Your task to perform on an android device: turn on the 24-hour format for clock Image 0: 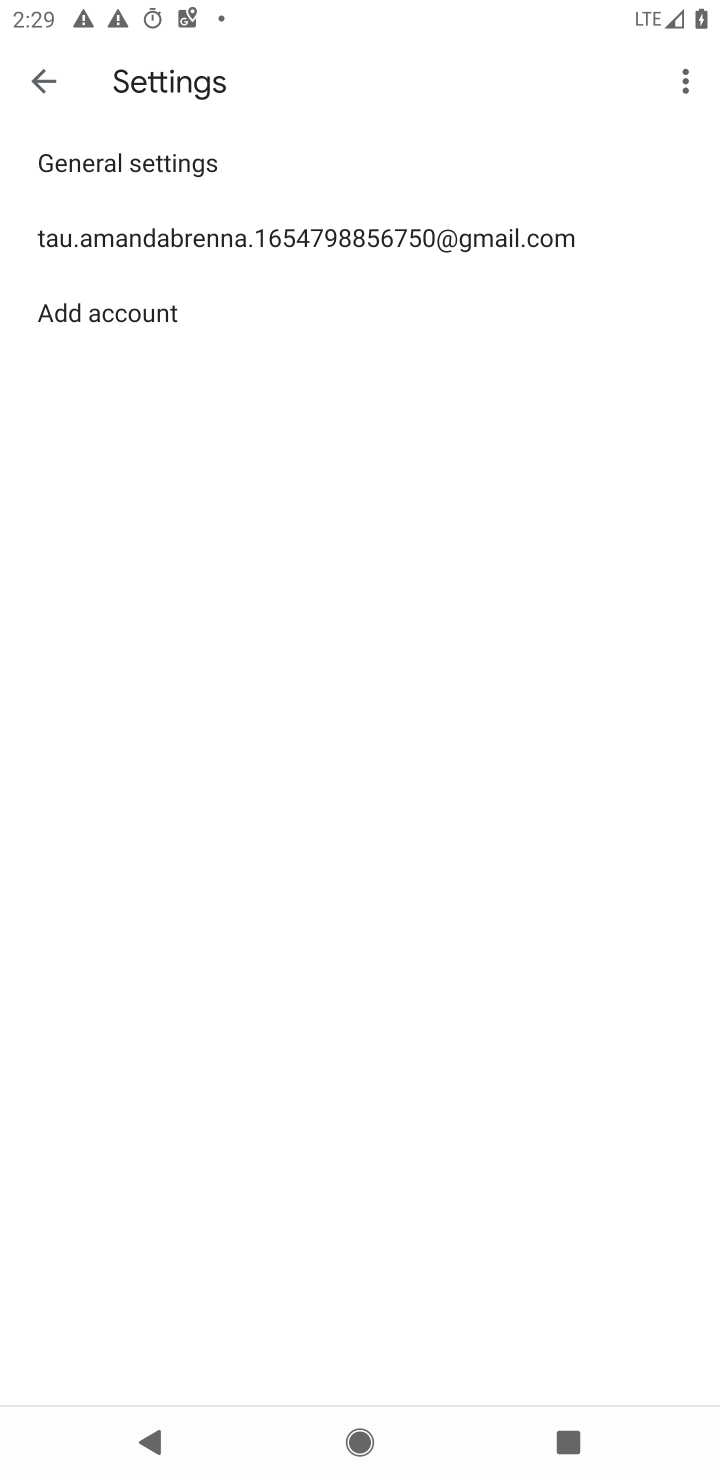
Step 0: press home button
Your task to perform on an android device: turn on the 24-hour format for clock Image 1: 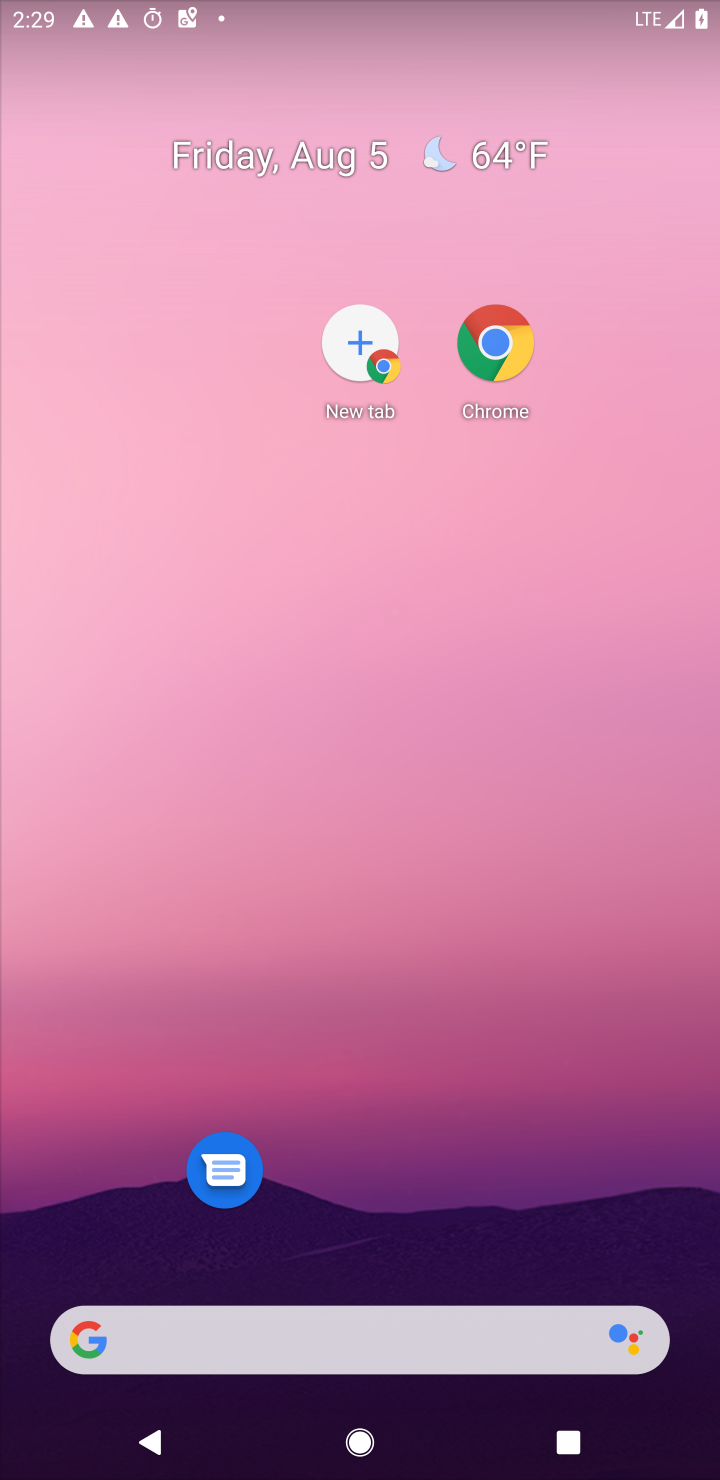
Step 1: drag from (335, 1213) to (255, 26)
Your task to perform on an android device: turn on the 24-hour format for clock Image 2: 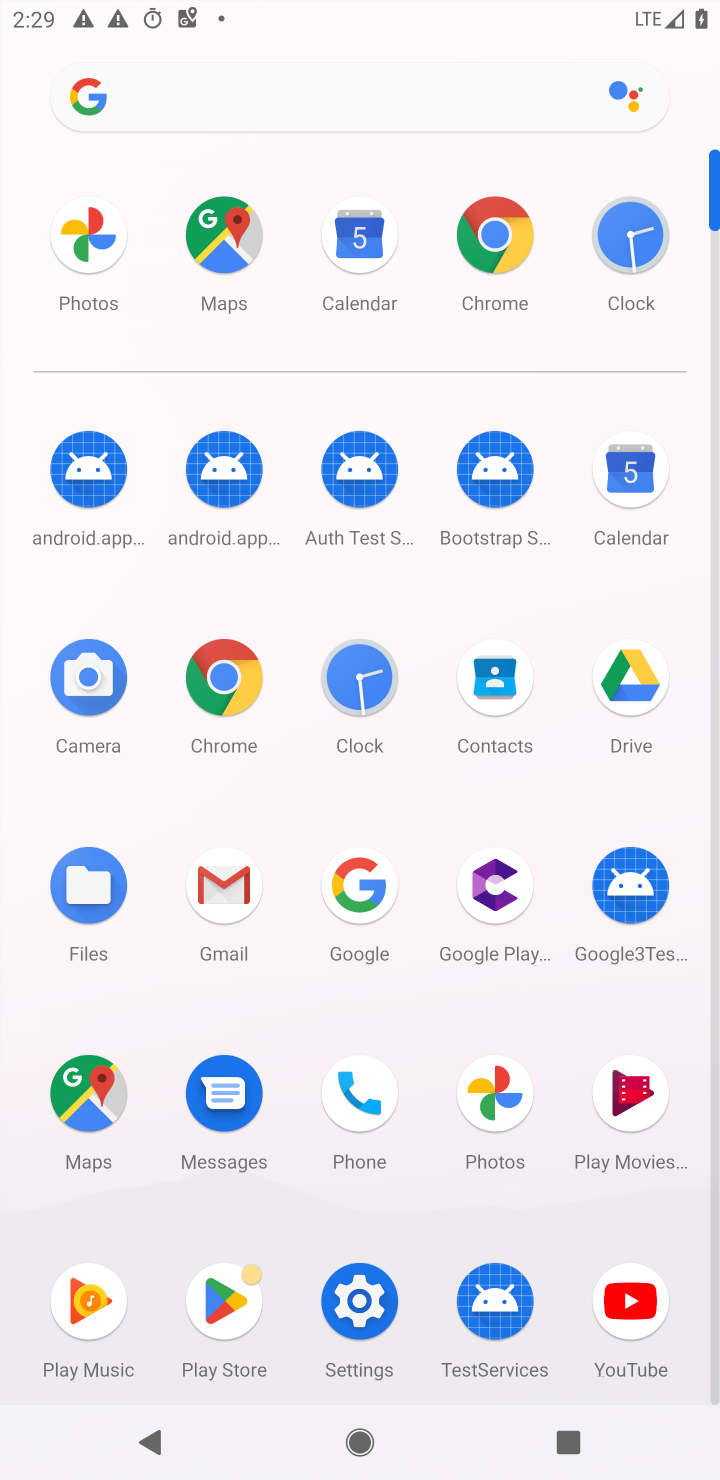
Step 2: click (362, 683)
Your task to perform on an android device: turn on the 24-hour format for clock Image 3: 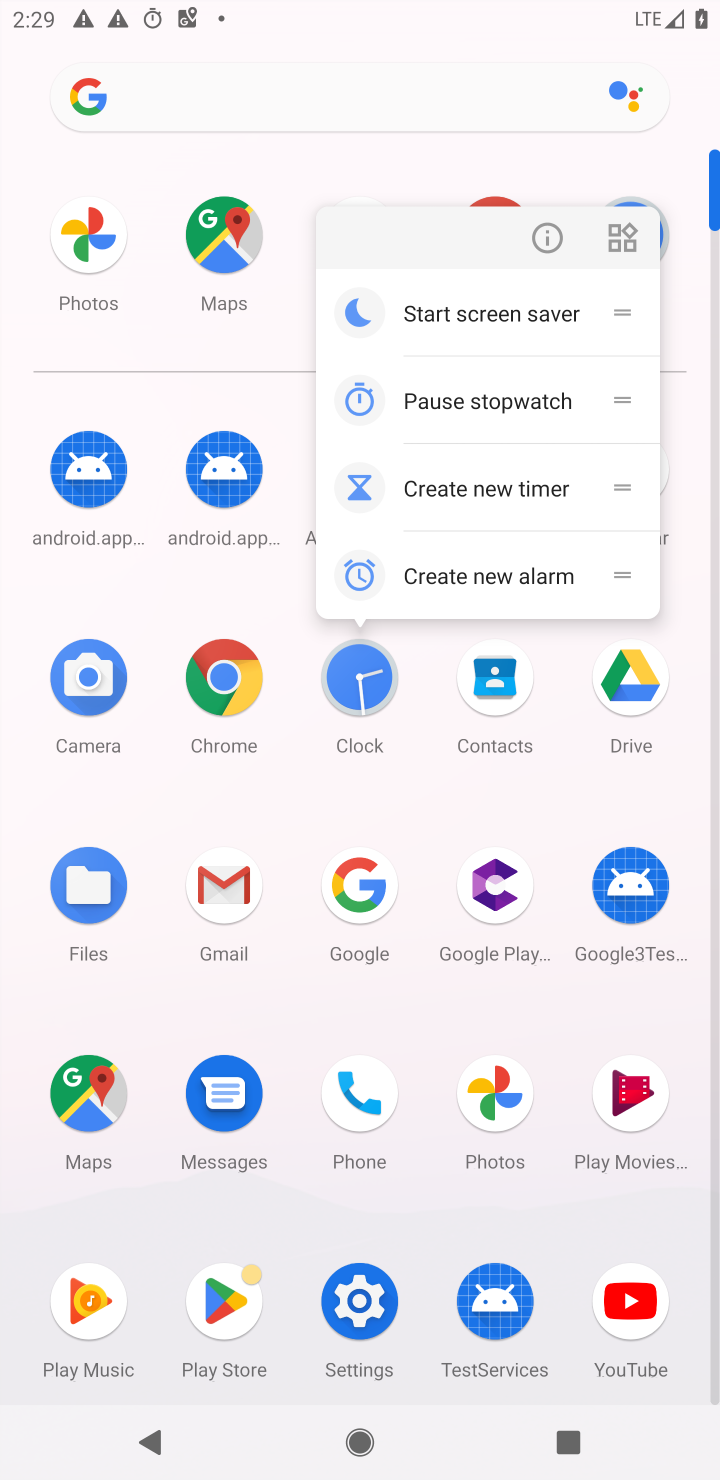
Step 3: click (361, 682)
Your task to perform on an android device: turn on the 24-hour format for clock Image 4: 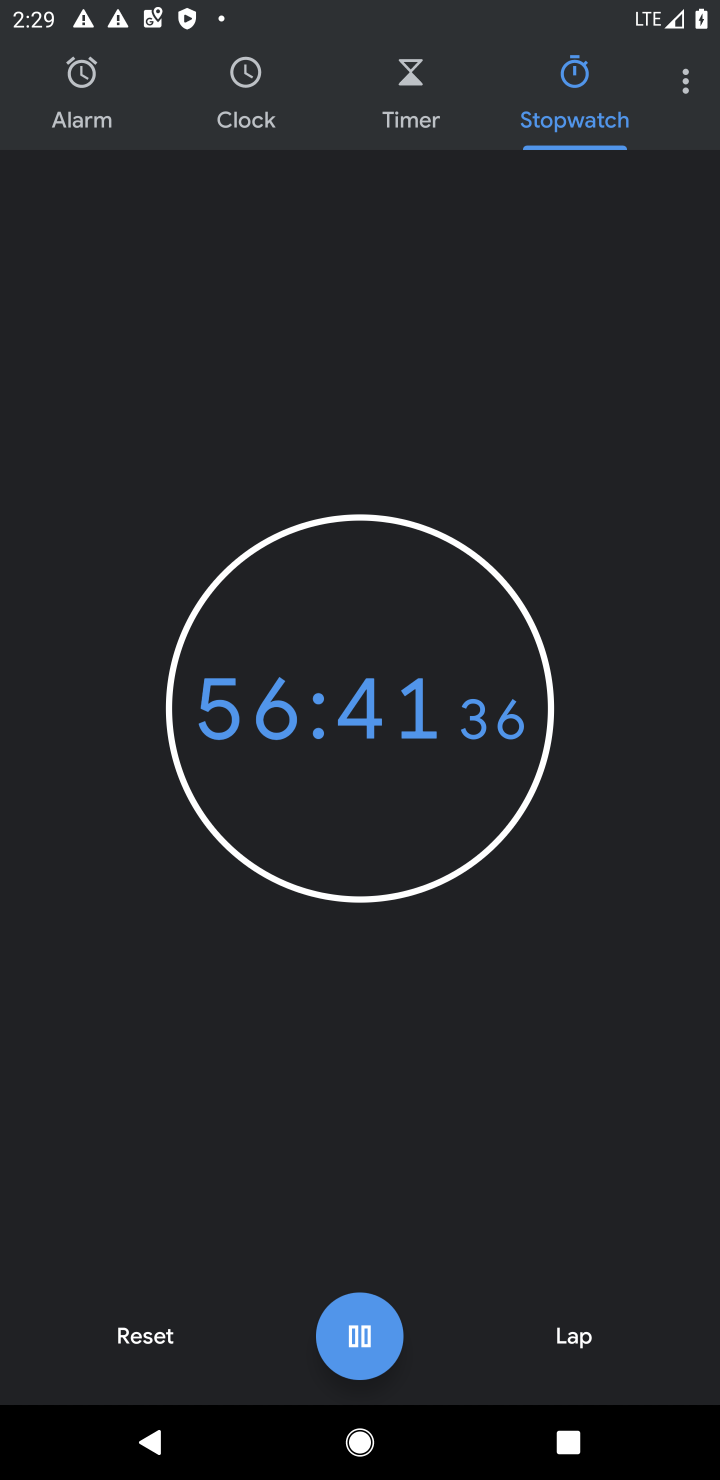
Step 4: click (688, 91)
Your task to perform on an android device: turn on the 24-hour format for clock Image 5: 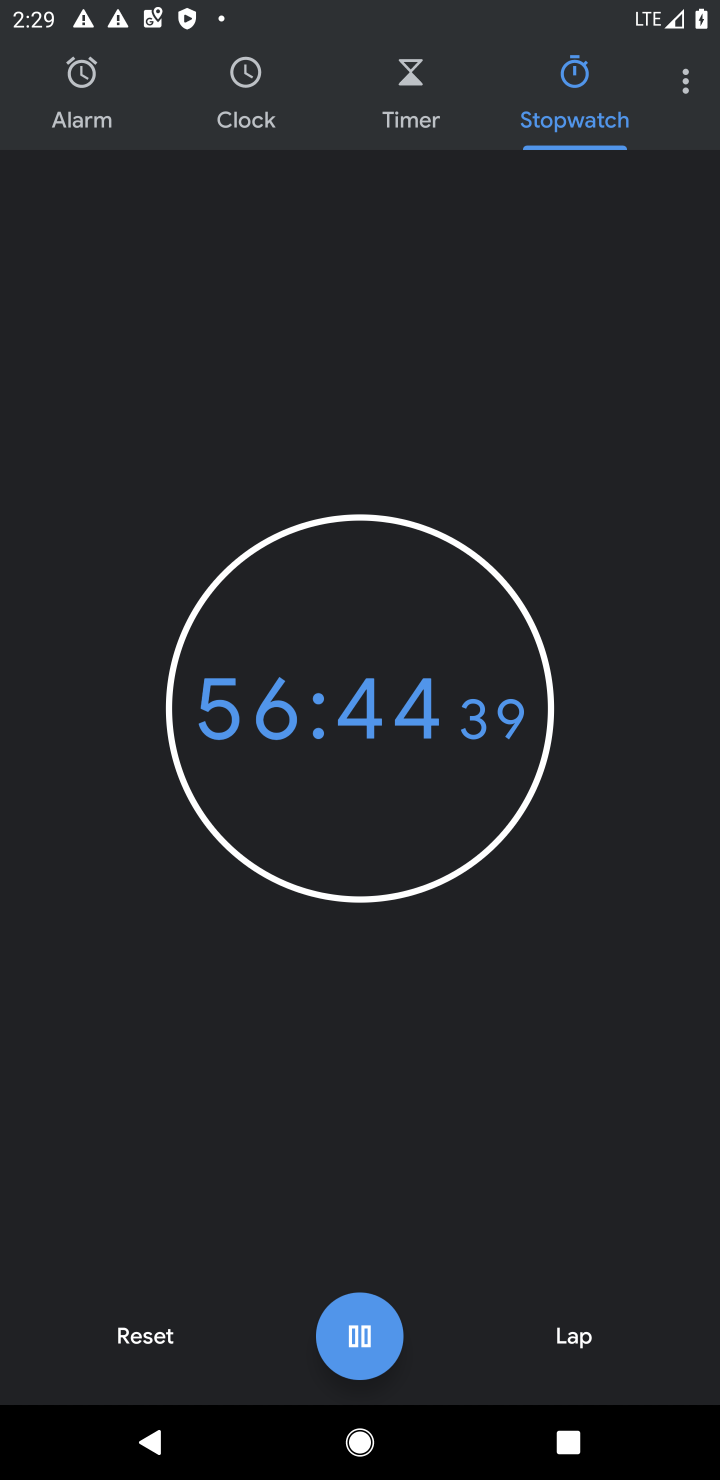
Step 5: click (687, 92)
Your task to perform on an android device: turn on the 24-hour format for clock Image 6: 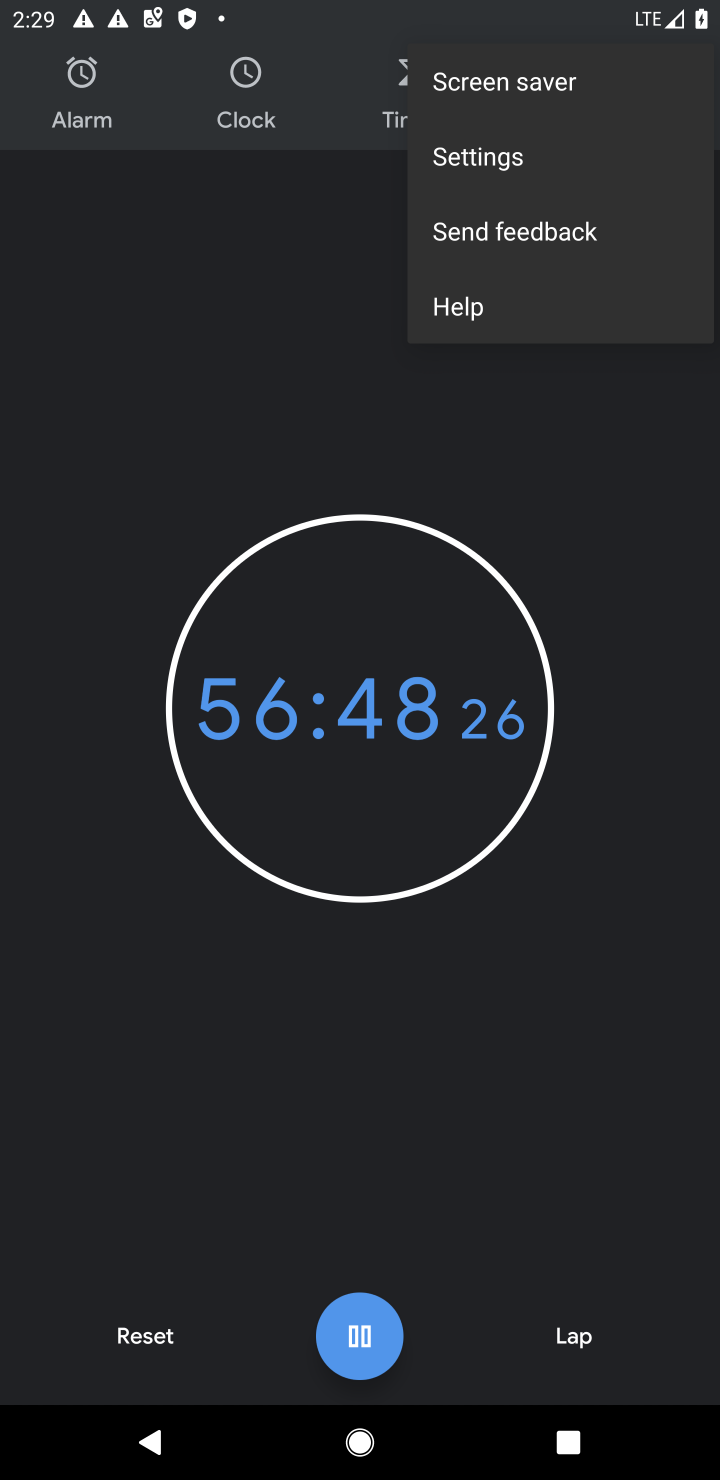
Step 6: click (591, 170)
Your task to perform on an android device: turn on the 24-hour format for clock Image 7: 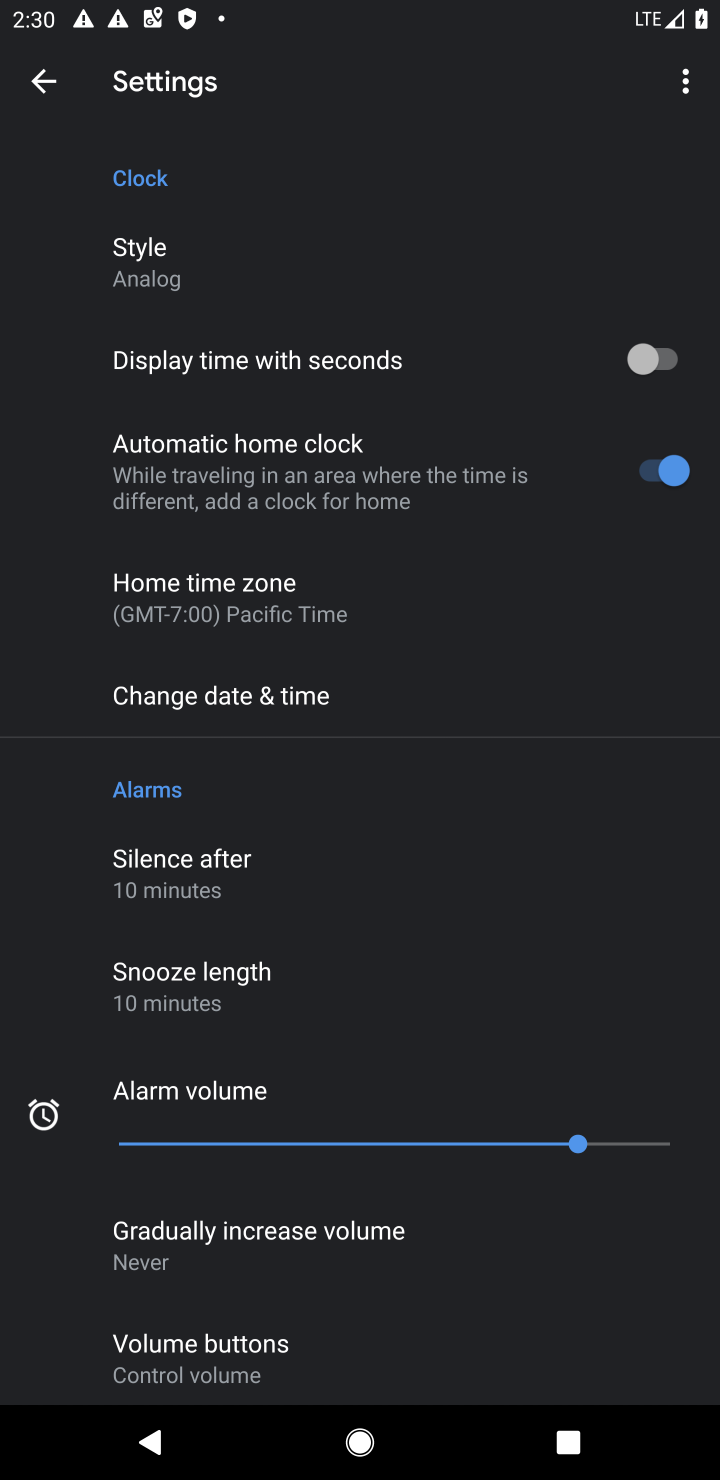
Step 7: click (272, 693)
Your task to perform on an android device: turn on the 24-hour format for clock Image 8: 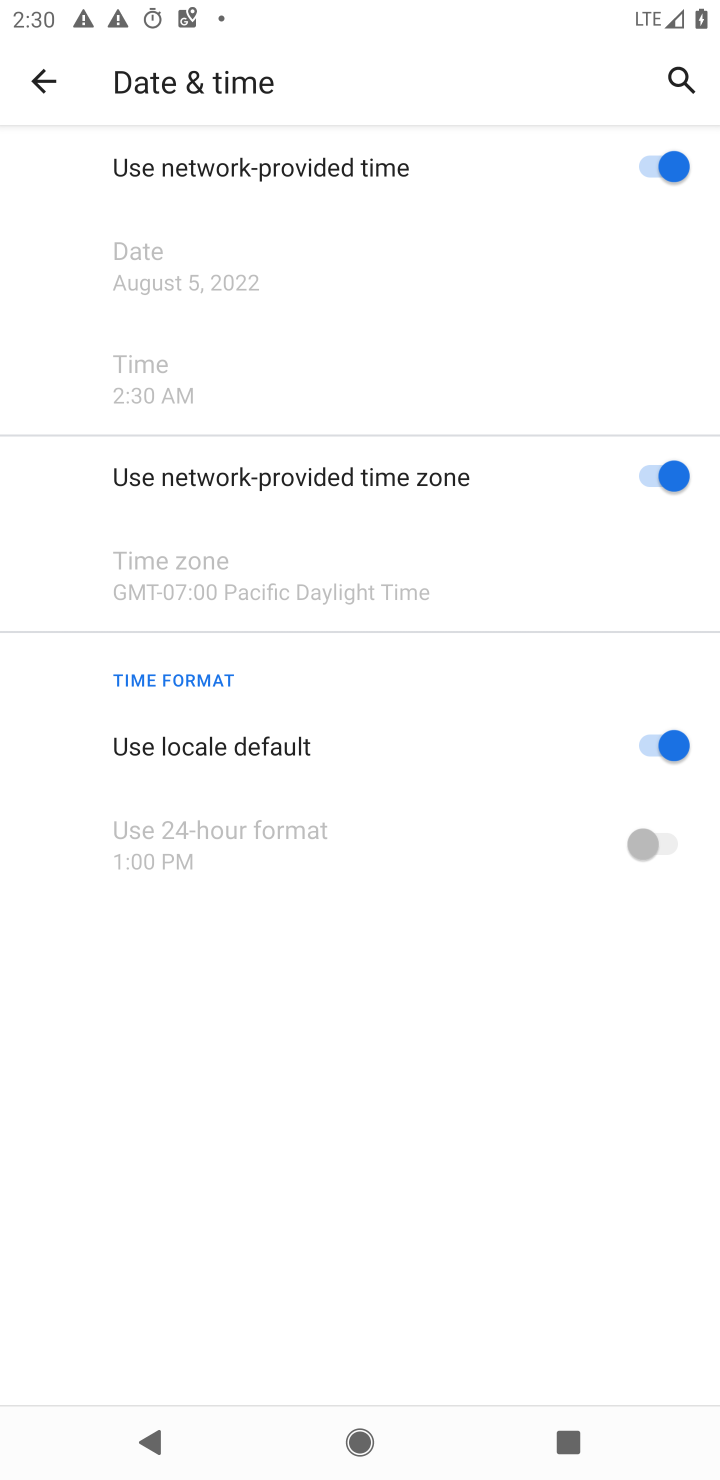
Step 8: click (677, 745)
Your task to perform on an android device: turn on the 24-hour format for clock Image 9: 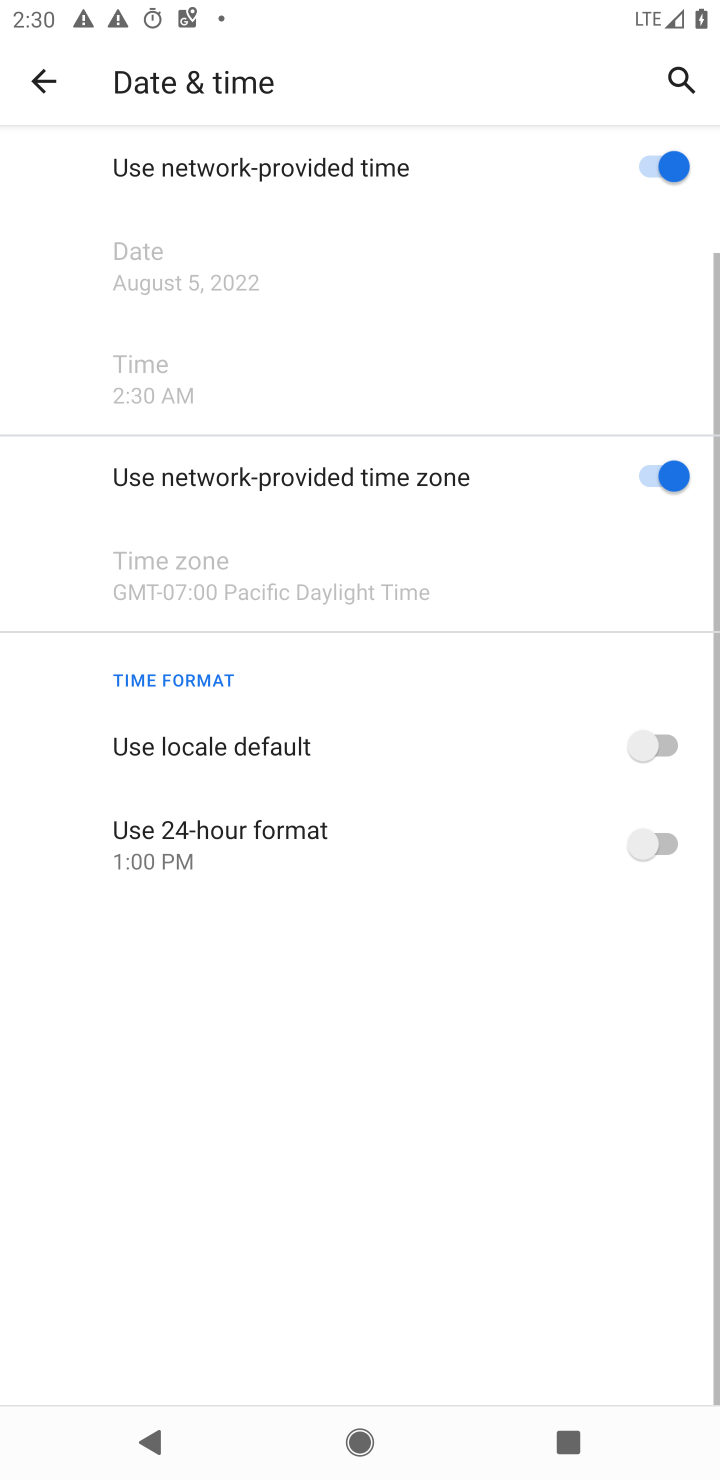
Step 9: click (639, 846)
Your task to perform on an android device: turn on the 24-hour format for clock Image 10: 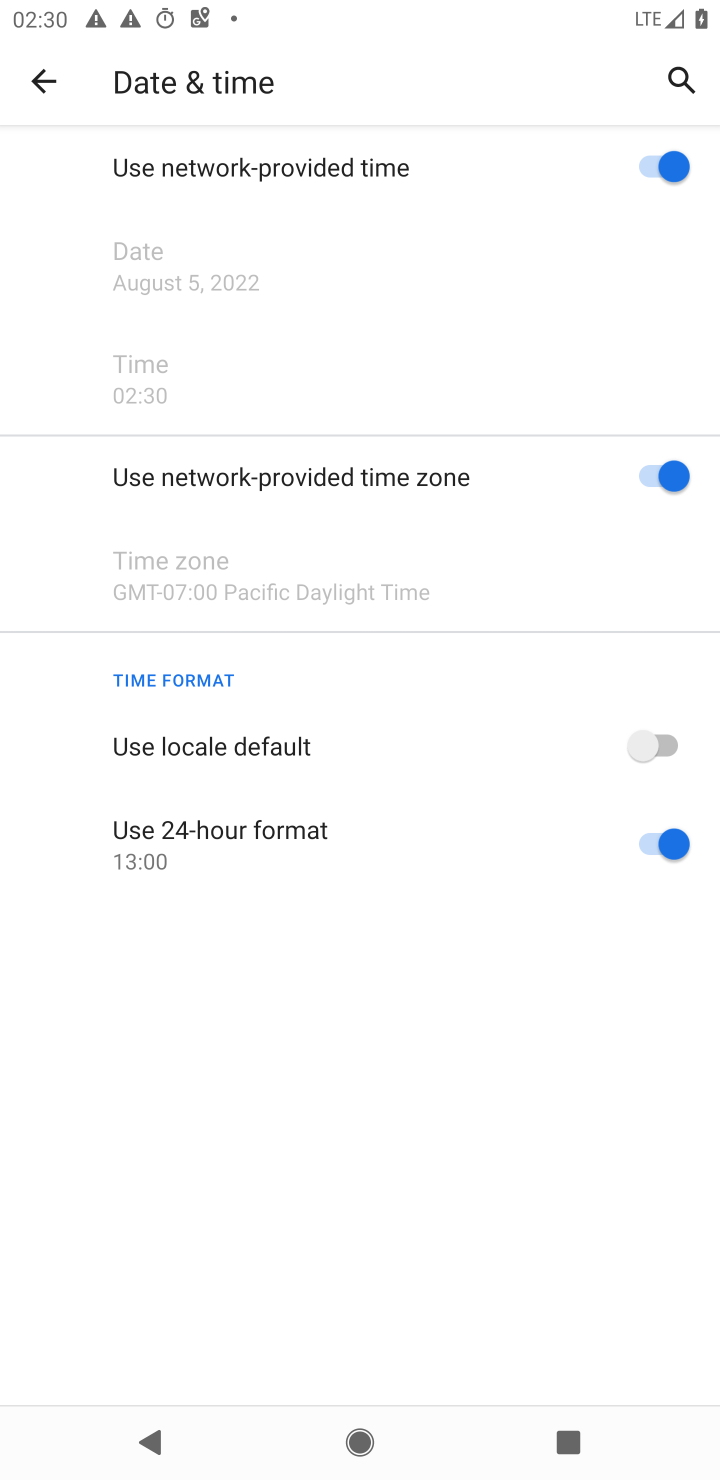
Step 10: task complete